Your task to perform on an android device: turn on notifications settings in the gmail app Image 0: 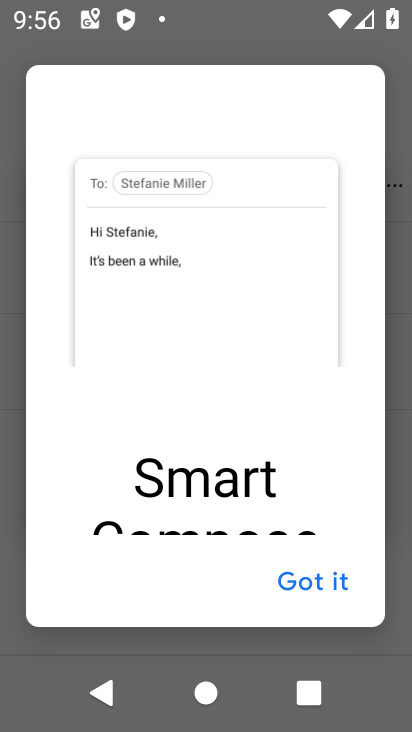
Step 0: click (305, 574)
Your task to perform on an android device: turn on notifications settings in the gmail app Image 1: 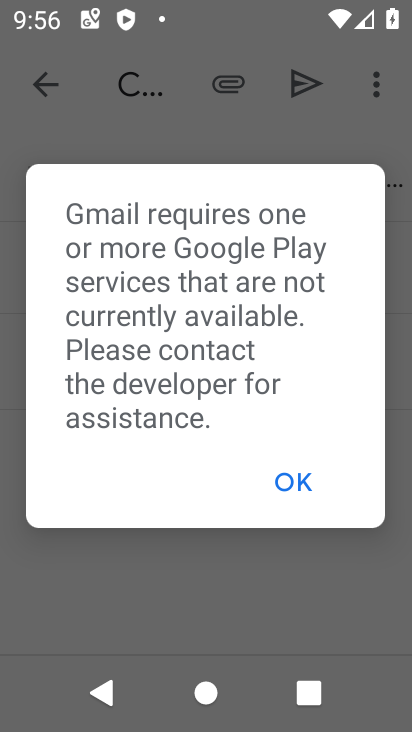
Step 1: press home button
Your task to perform on an android device: turn on notifications settings in the gmail app Image 2: 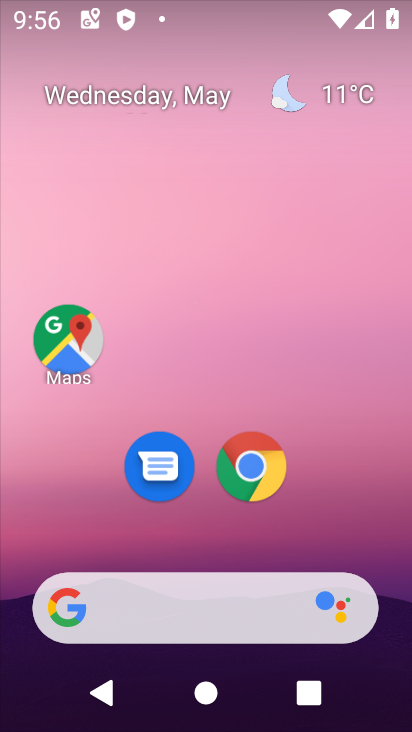
Step 2: drag from (294, 542) to (243, 91)
Your task to perform on an android device: turn on notifications settings in the gmail app Image 3: 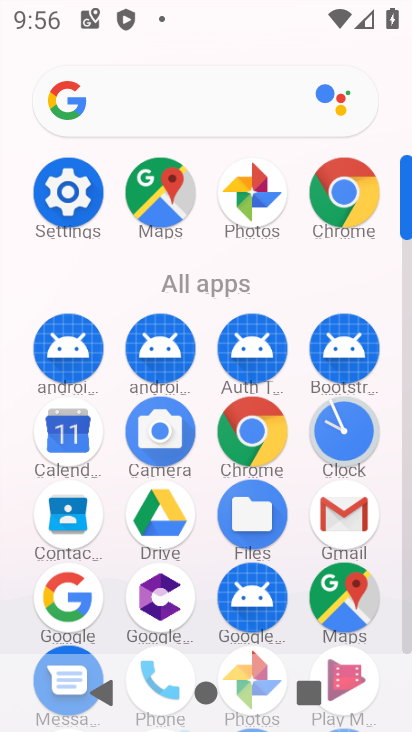
Step 3: click (74, 516)
Your task to perform on an android device: turn on notifications settings in the gmail app Image 4: 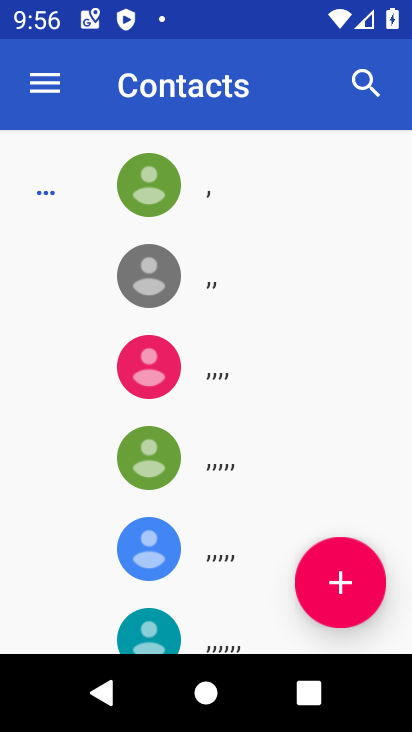
Step 4: click (294, 580)
Your task to perform on an android device: turn on notifications settings in the gmail app Image 5: 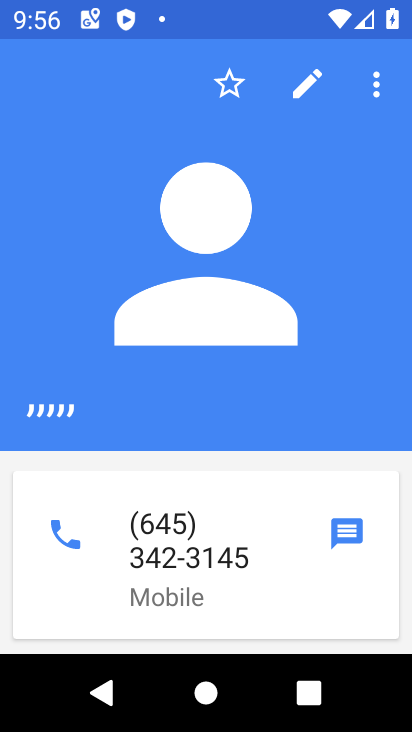
Step 5: press back button
Your task to perform on an android device: turn on notifications settings in the gmail app Image 6: 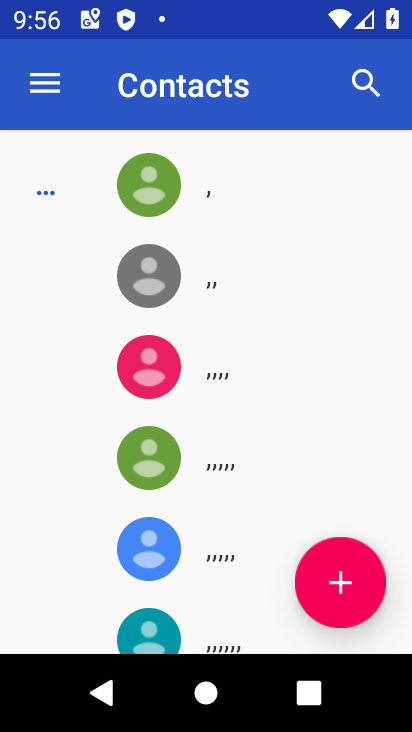
Step 6: click (329, 580)
Your task to perform on an android device: turn on notifications settings in the gmail app Image 7: 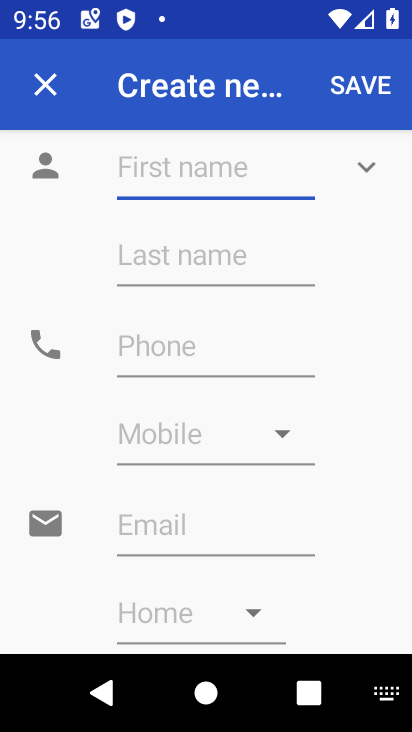
Step 7: click (196, 177)
Your task to perform on an android device: turn on notifications settings in the gmail app Image 8: 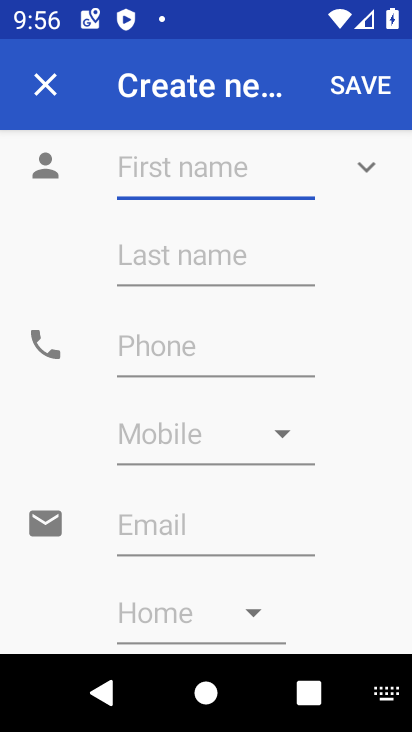
Step 8: type "Ramiz "
Your task to perform on an android device: turn on notifications settings in the gmail app Image 9: 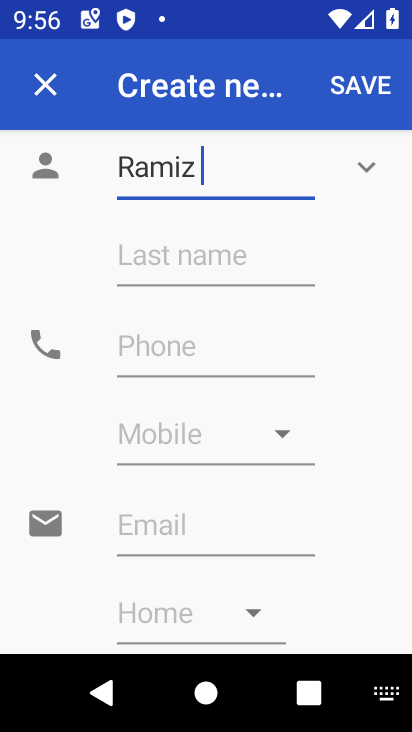
Step 9: click (197, 265)
Your task to perform on an android device: turn on notifications settings in the gmail app Image 10: 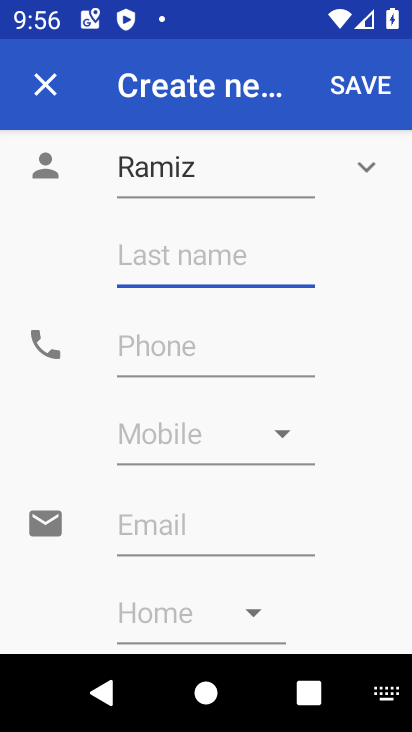
Step 10: type ""
Your task to perform on an android device: turn on notifications settings in the gmail app Image 11: 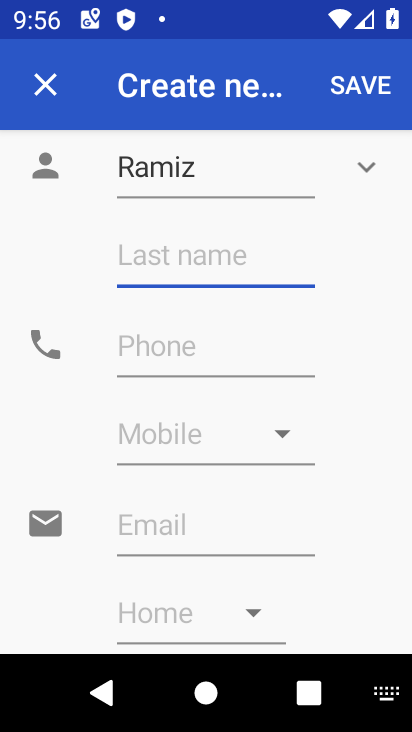
Step 11: type "Raza"
Your task to perform on an android device: turn on notifications settings in the gmail app Image 12: 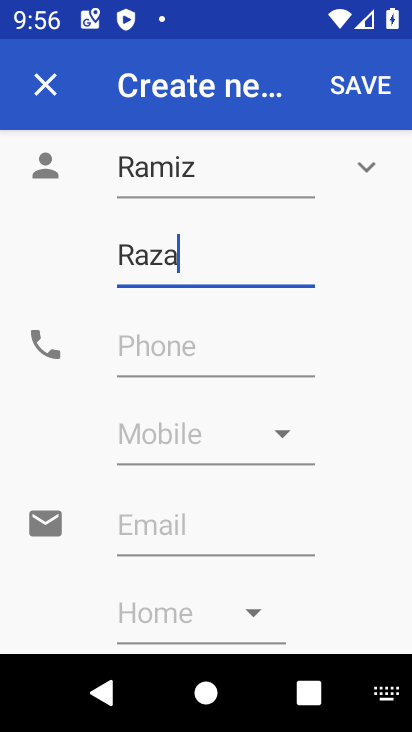
Step 12: click (200, 345)
Your task to perform on an android device: turn on notifications settings in the gmail app Image 13: 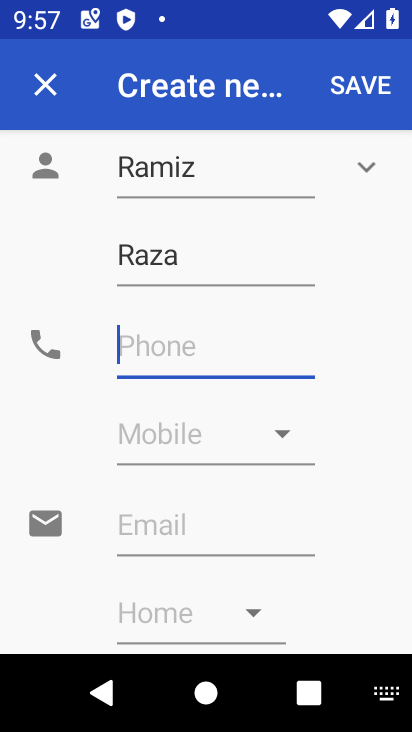
Step 13: type "6567656767"
Your task to perform on an android device: turn on notifications settings in the gmail app Image 14: 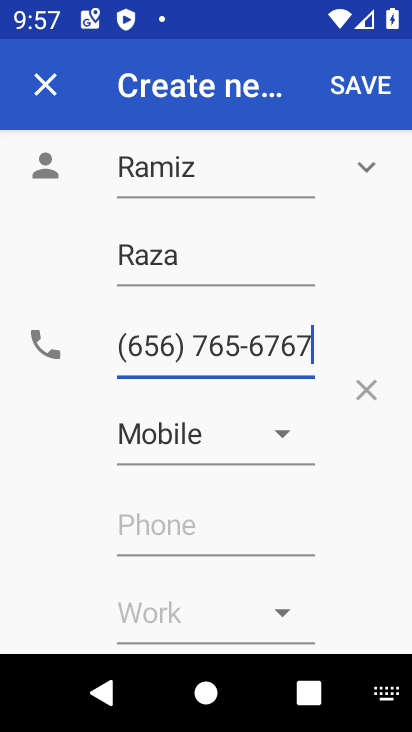
Step 14: click (334, 86)
Your task to perform on an android device: turn on notifications settings in the gmail app Image 15: 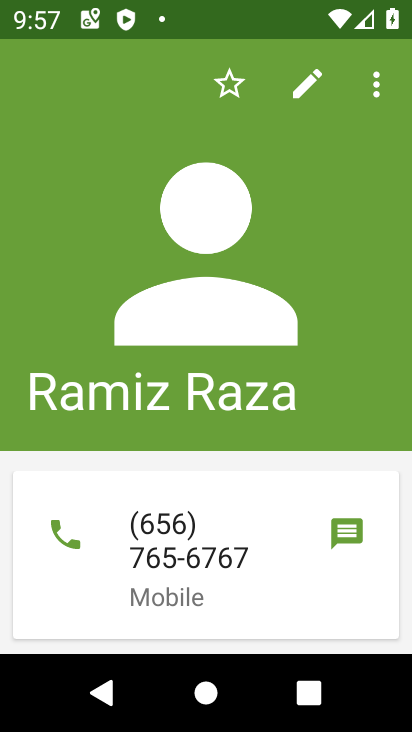
Step 15: task complete